Your task to perform on an android device: install app "Skype" Image 0: 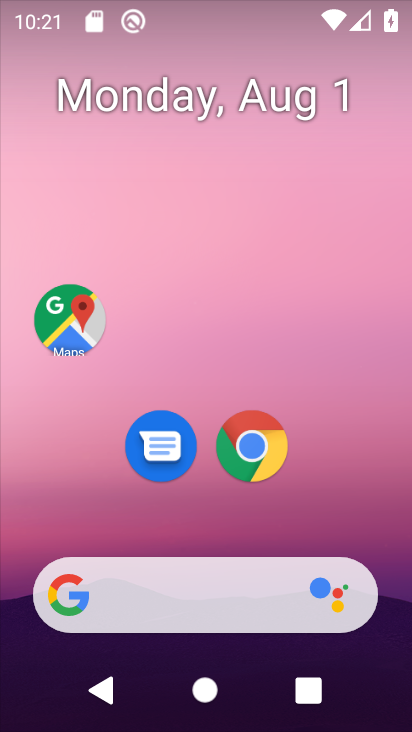
Step 0: drag from (228, 511) to (275, 137)
Your task to perform on an android device: install app "Skype" Image 1: 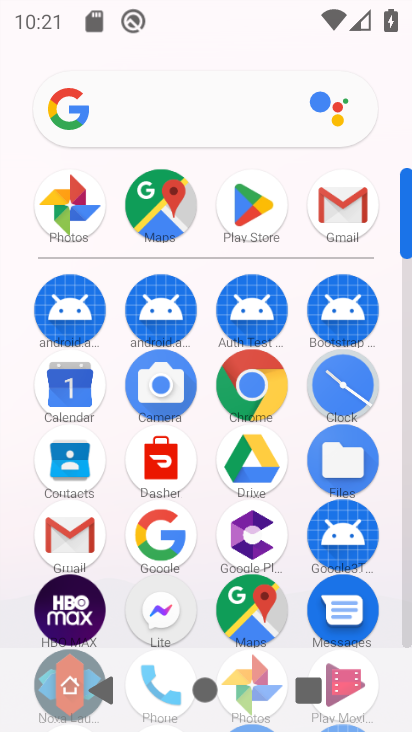
Step 1: click (241, 225)
Your task to perform on an android device: install app "Skype" Image 2: 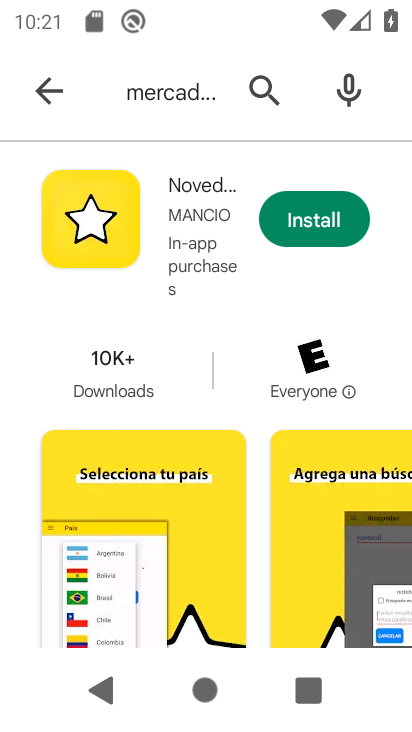
Step 2: click (262, 77)
Your task to perform on an android device: install app "Skype" Image 3: 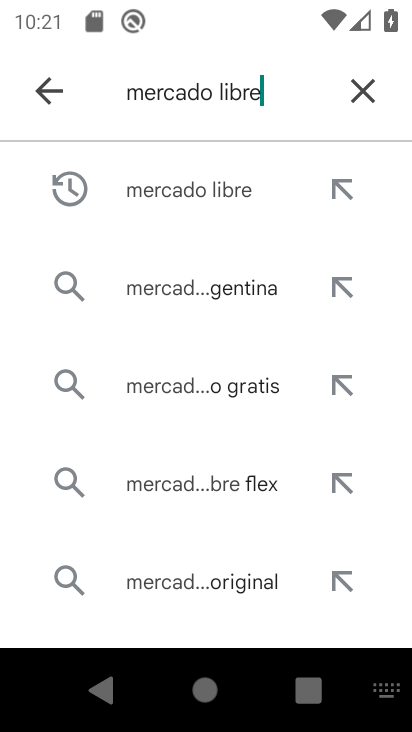
Step 3: click (350, 93)
Your task to perform on an android device: install app "Skype" Image 4: 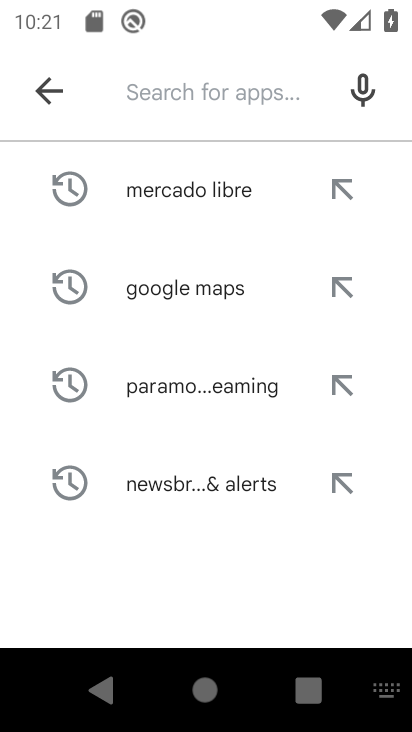
Step 4: type "Skype"
Your task to perform on an android device: install app "Skype" Image 5: 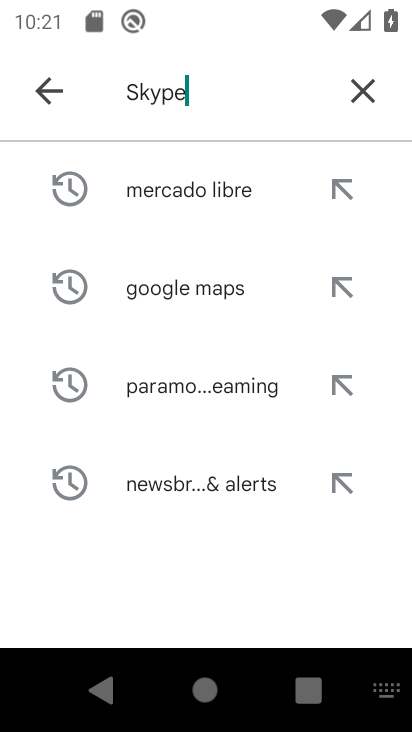
Step 5: type ""
Your task to perform on an android device: install app "Skype" Image 6: 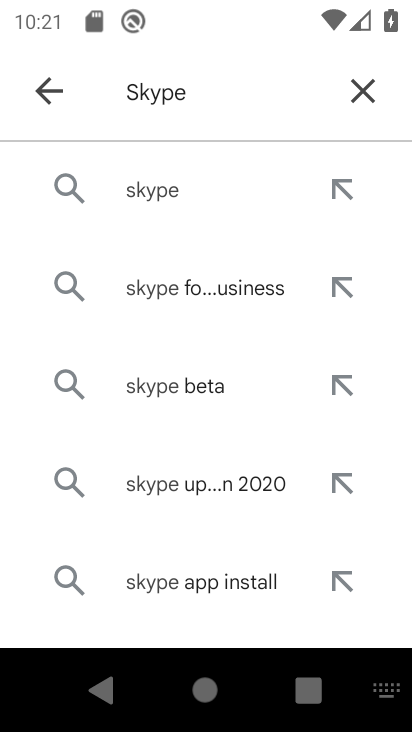
Step 6: click (176, 168)
Your task to perform on an android device: install app "Skype" Image 7: 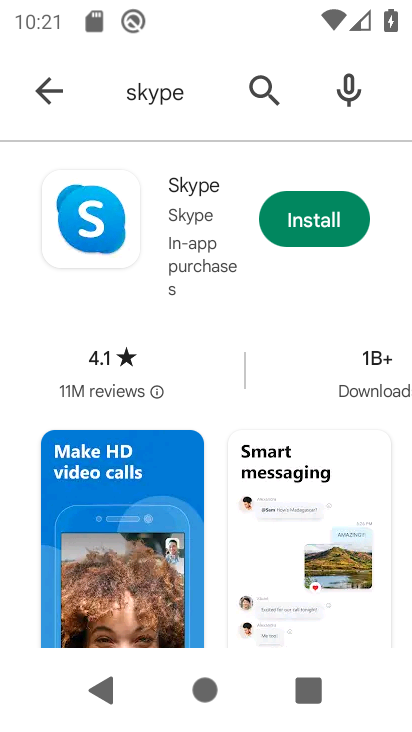
Step 7: click (291, 217)
Your task to perform on an android device: install app "Skype" Image 8: 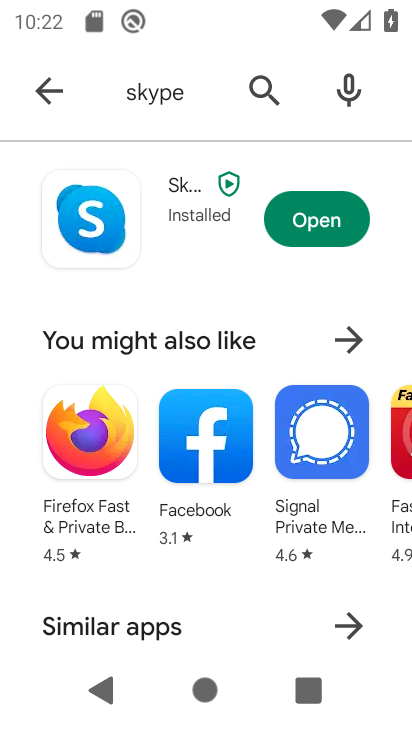
Step 8: task complete